Your task to perform on an android device: Open Yahoo.com Image 0: 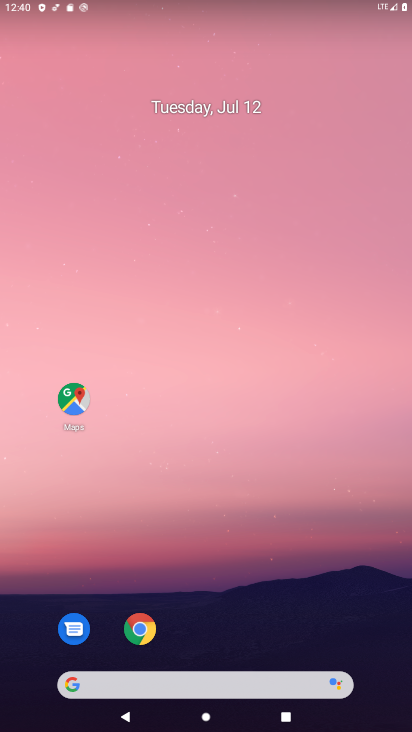
Step 0: click (103, 678)
Your task to perform on an android device: Open Yahoo.com Image 1: 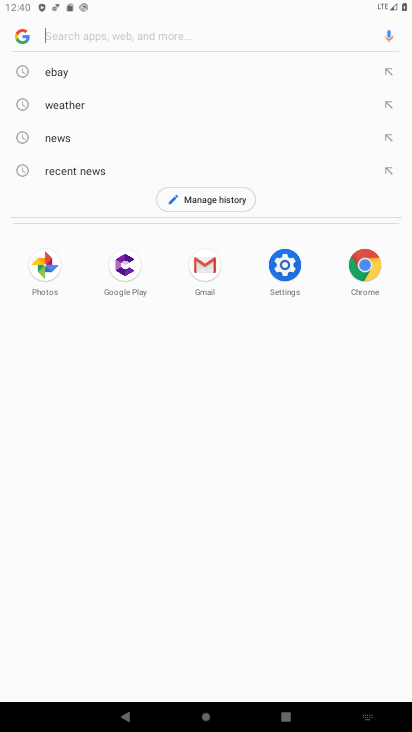
Step 1: type "Yahoo.com"
Your task to perform on an android device: Open Yahoo.com Image 2: 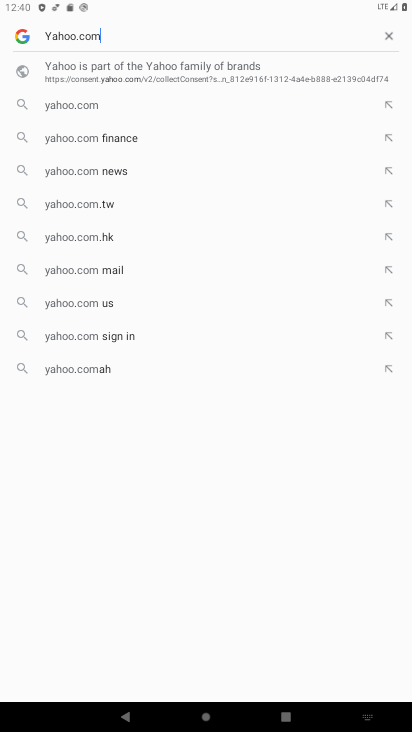
Step 2: click (59, 102)
Your task to perform on an android device: Open Yahoo.com Image 3: 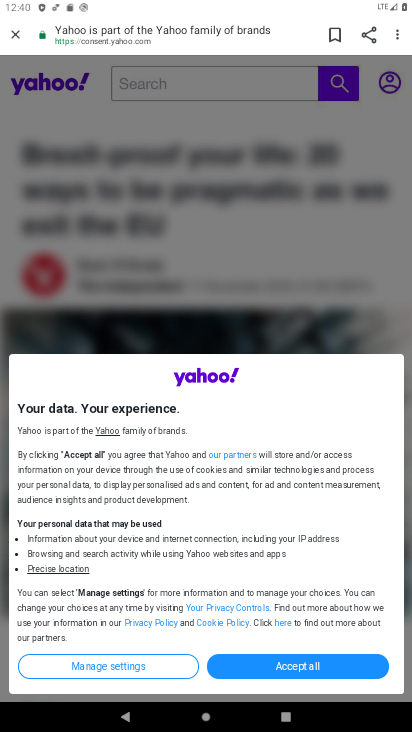
Step 3: task complete